Your task to perform on an android device: delete a single message in the gmail app Image 0: 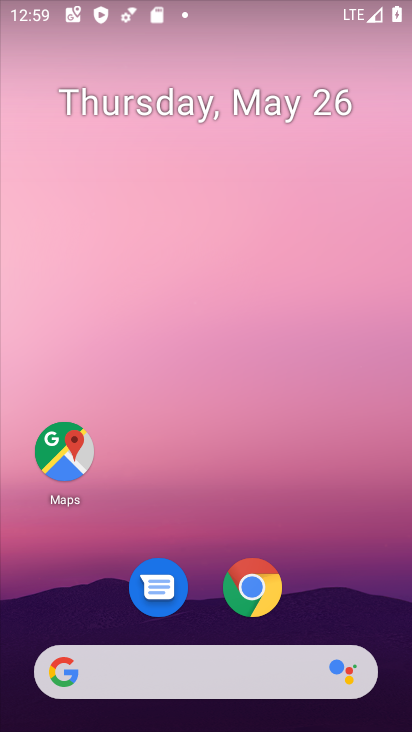
Step 0: drag from (377, 585) to (374, 311)
Your task to perform on an android device: delete a single message in the gmail app Image 1: 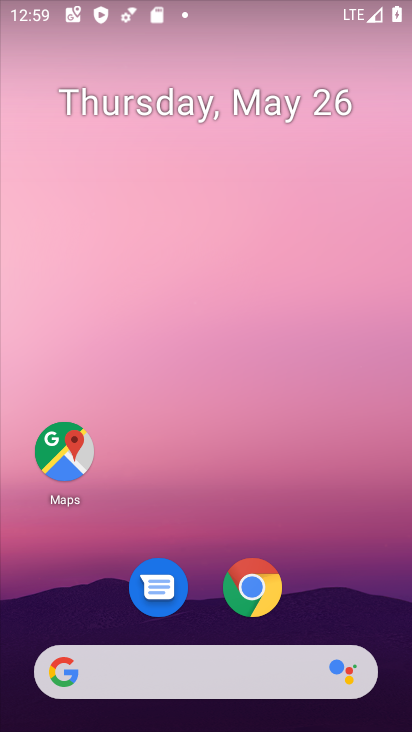
Step 1: drag from (367, 607) to (367, 216)
Your task to perform on an android device: delete a single message in the gmail app Image 2: 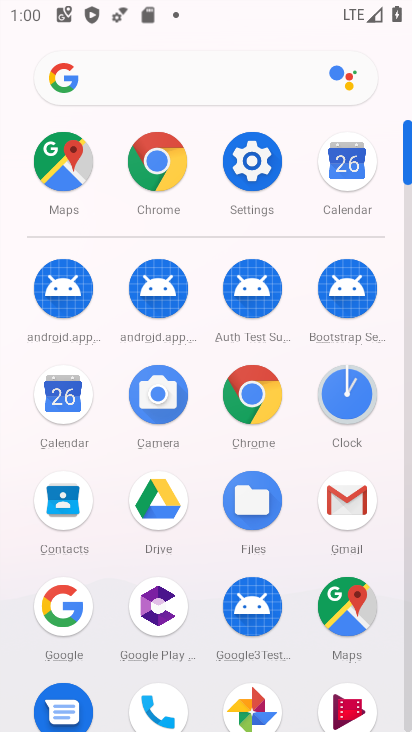
Step 2: click (339, 494)
Your task to perform on an android device: delete a single message in the gmail app Image 3: 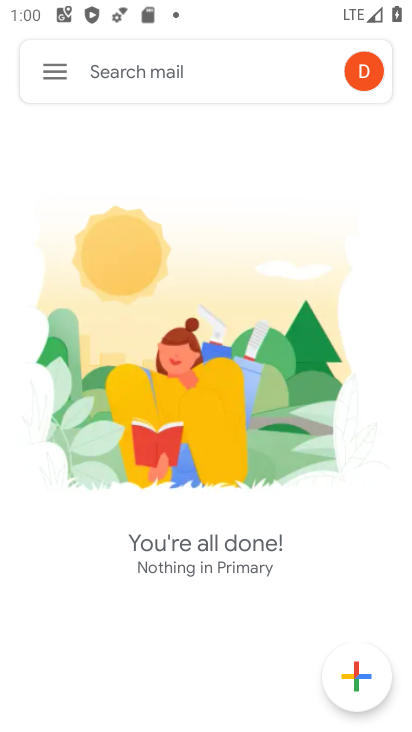
Step 3: task complete